Your task to perform on an android device: Go to internet settings Image 0: 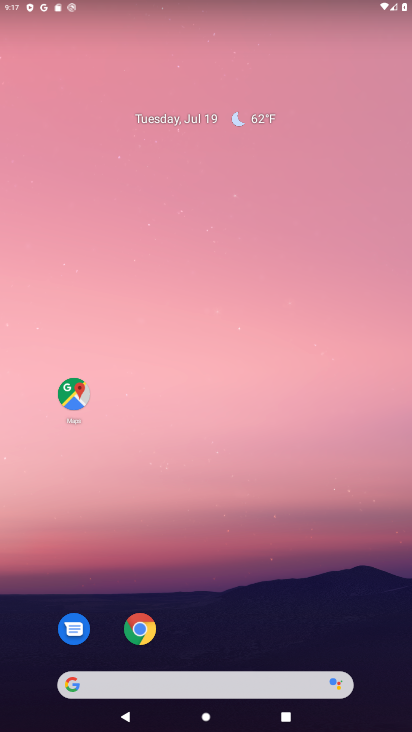
Step 0: drag from (287, 638) to (235, 226)
Your task to perform on an android device: Go to internet settings Image 1: 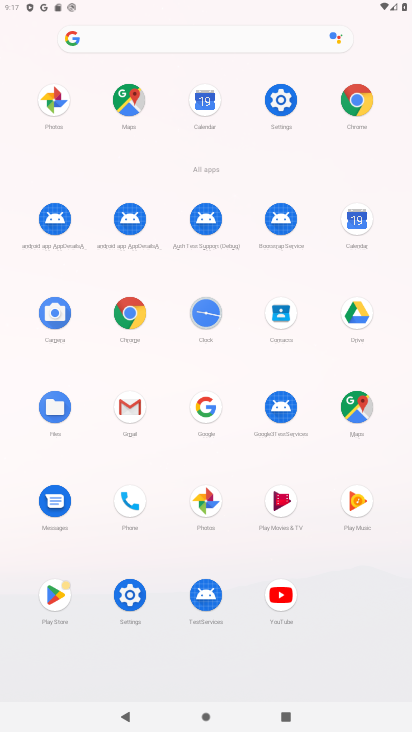
Step 1: click (281, 103)
Your task to perform on an android device: Go to internet settings Image 2: 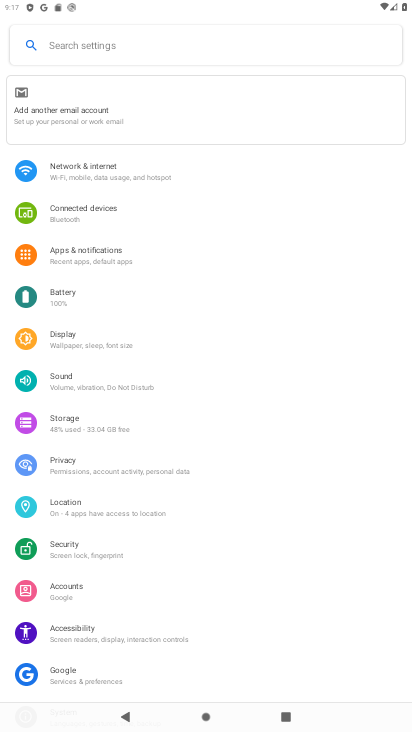
Step 2: click (146, 172)
Your task to perform on an android device: Go to internet settings Image 3: 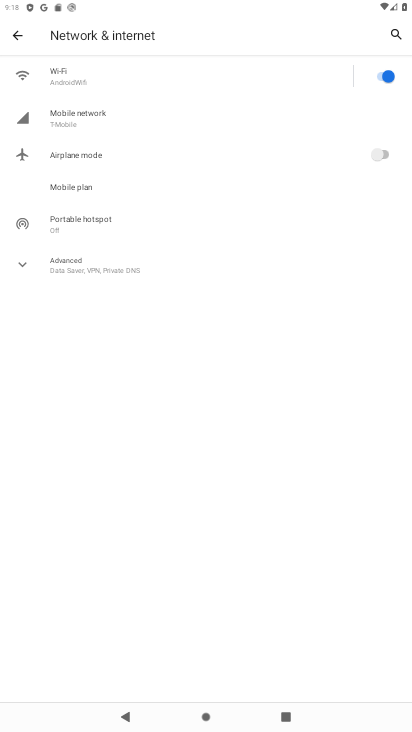
Step 3: click (153, 110)
Your task to perform on an android device: Go to internet settings Image 4: 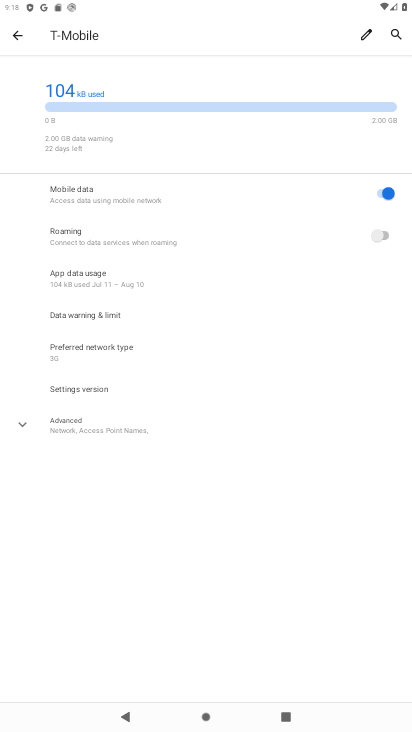
Step 4: task complete